Your task to perform on an android device: change notifications settings Image 0: 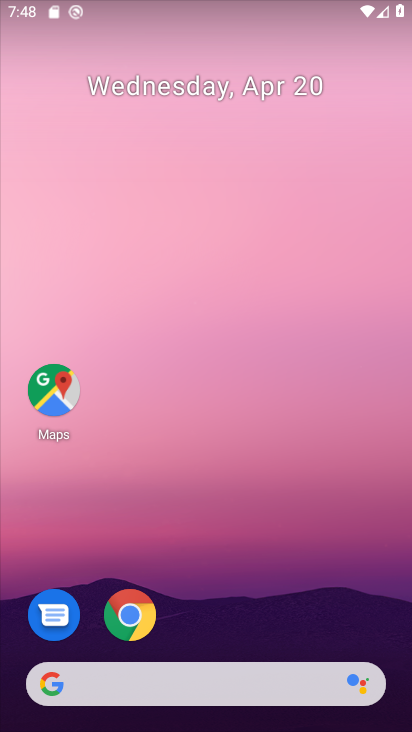
Step 0: drag from (198, 491) to (235, 14)
Your task to perform on an android device: change notifications settings Image 1: 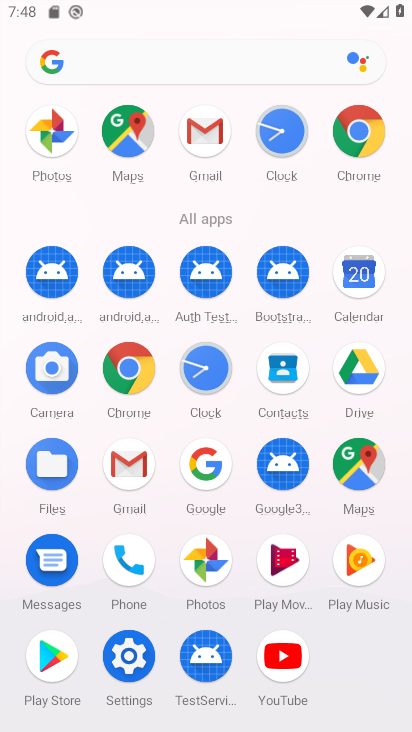
Step 1: click (133, 663)
Your task to perform on an android device: change notifications settings Image 2: 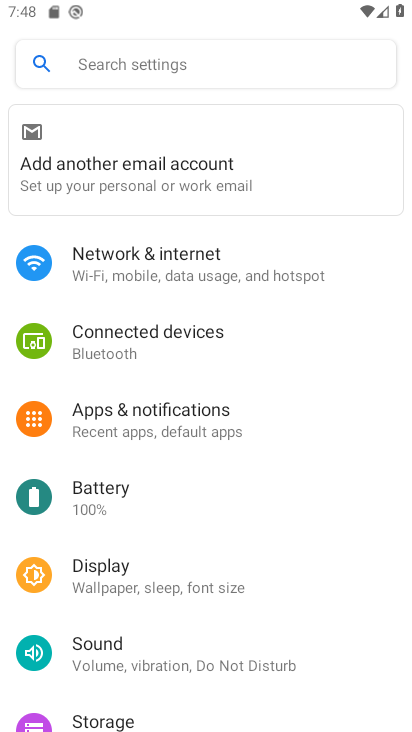
Step 2: click (159, 419)
Your task to perform on an android device: change notifications settings Image 3: 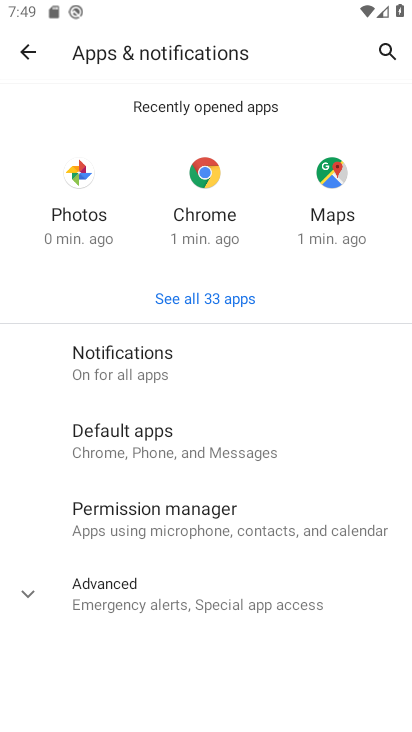
Step 3: click (125, 373)
Your task to perform on an android device: change notifications settings Image 4: 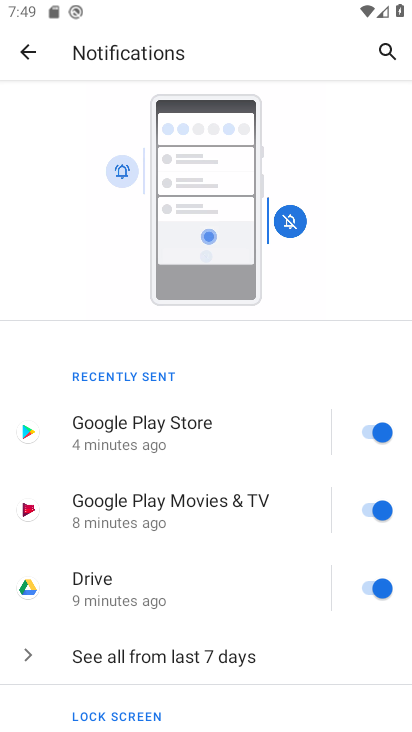
Step 4: click (387, 429)
Your task to perform on an android device: change notifications settings Image 5: 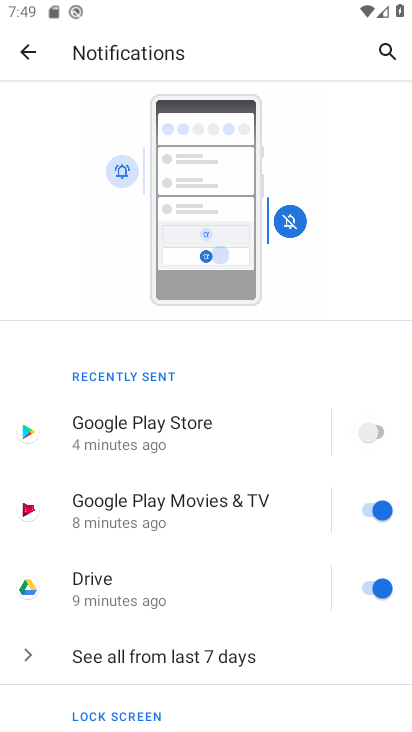
Step 5: click (374, 507)
Your task to perform on an android device: change notifications settings Image 6: 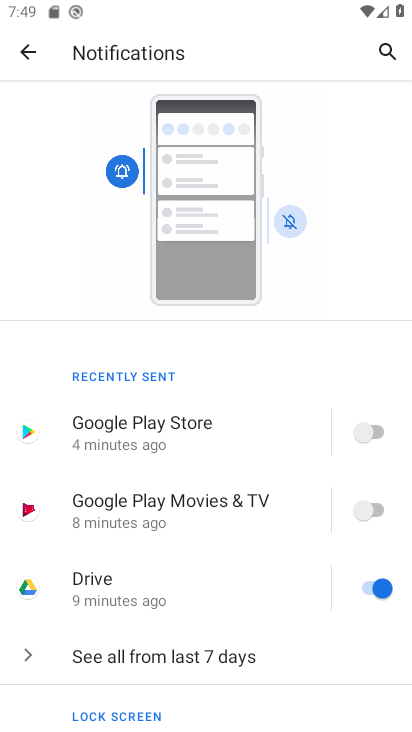
Step 6: click (374, 582)
Your task to perform on an android device: change notifications settings Image 7: 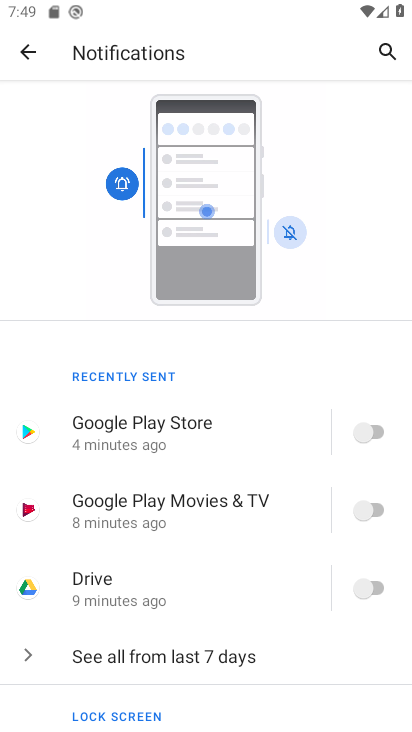
Step 7: task complete